Your task to perform on an android device: change your default location settings in chrome Image 0: 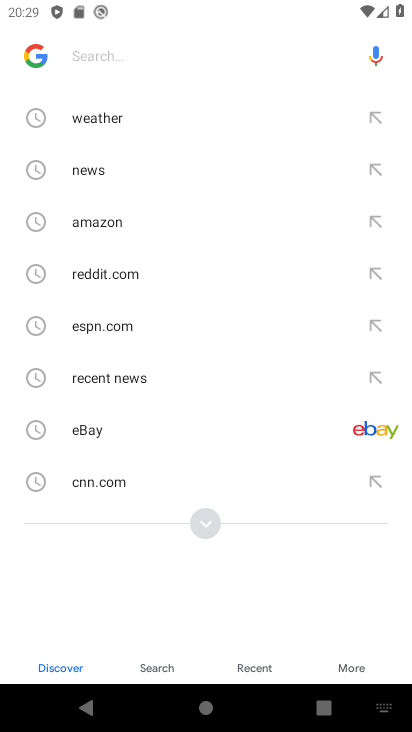
Step 0: press back button
Your task to perform on an android device: change your default location settings in chrome Image 1: 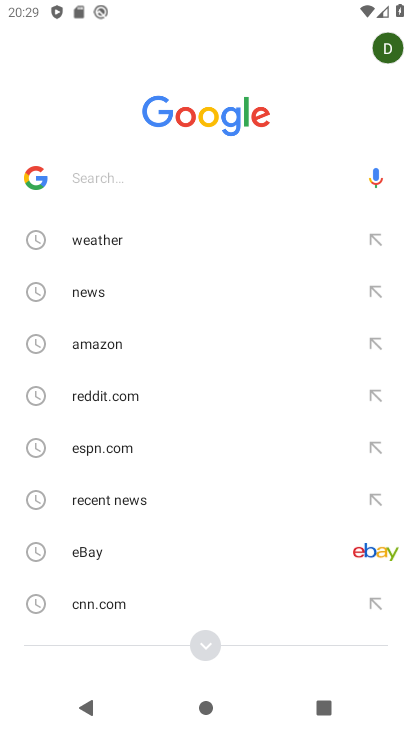
Step 1: press home button
Your task to perform on an android device: change your default location settings in chrome Image 2: 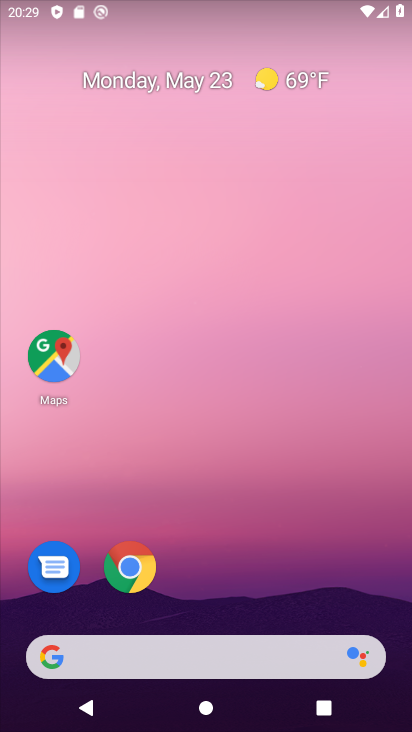
Step 2: click (126, 569)
Your task to perform on an android device: change your default location settings in chrome Image 3: 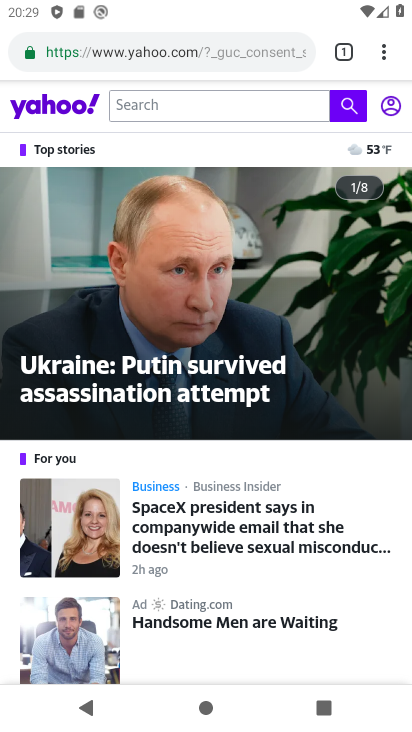
Step 3: click (387, 60)
Your task to perform on an android device: change your default location settings in chrome Image 4: 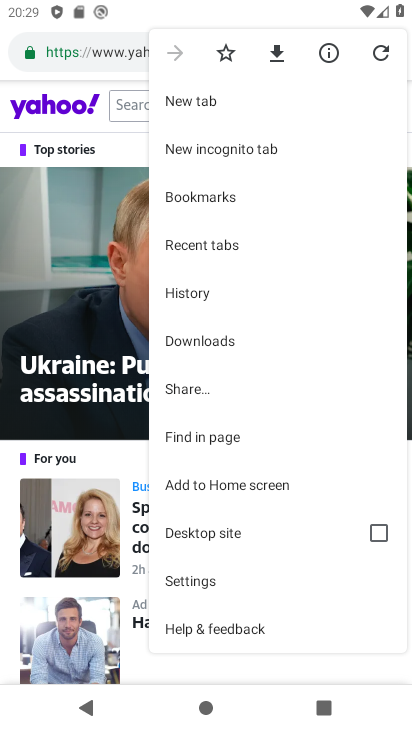
Step 4: click (220, 588)
Your task to perform on an android device: change your default location settings in chrome Image 5: 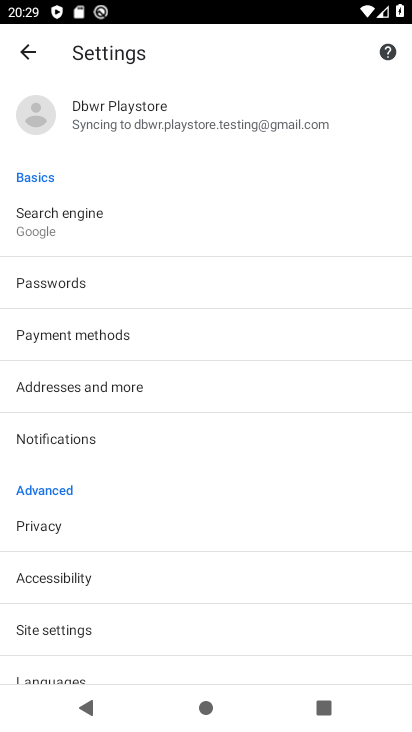
Step 5: click (83, 630)
Your task to perform on an android device: change your default location settings in chrome Image 6: 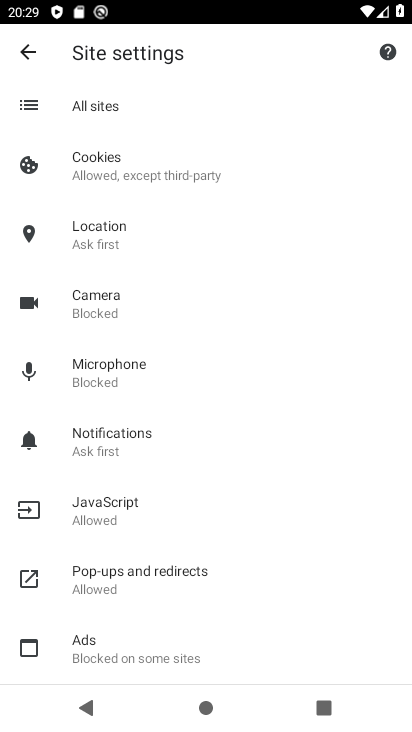
Step 6: click (116, 246)
Your task to perform on an android device: change your default location settings in chrome Image 7: 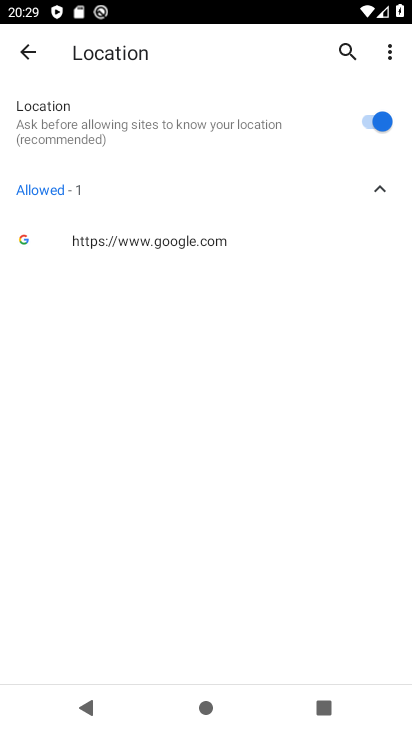
Step 7: click (359, 121)
Your task to perform on an android device: change your default location settings in chrome Image 8: 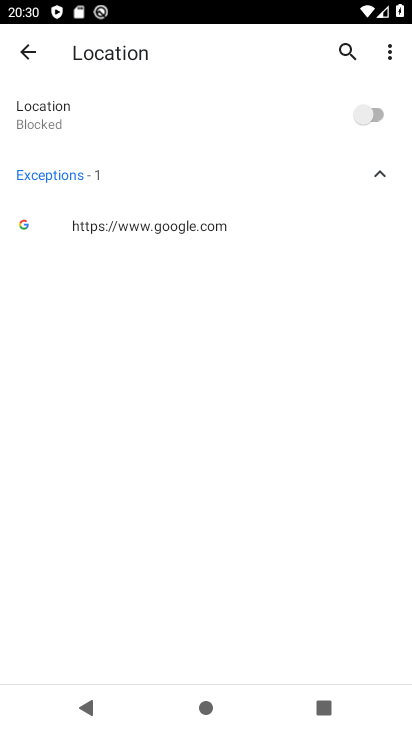
Step 8: task complete